Your task to perform on an android device: What's the weather today? Image 0: 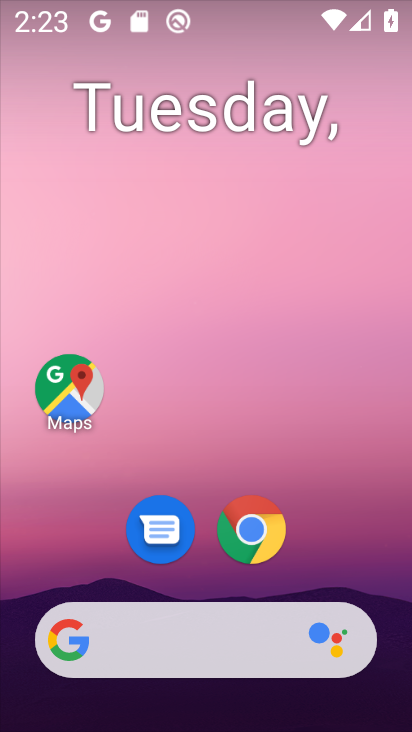
Step 0: drag from (5, 241) to (374, 267)
Your task to perform on an android device: What's the weather today? Image 1: 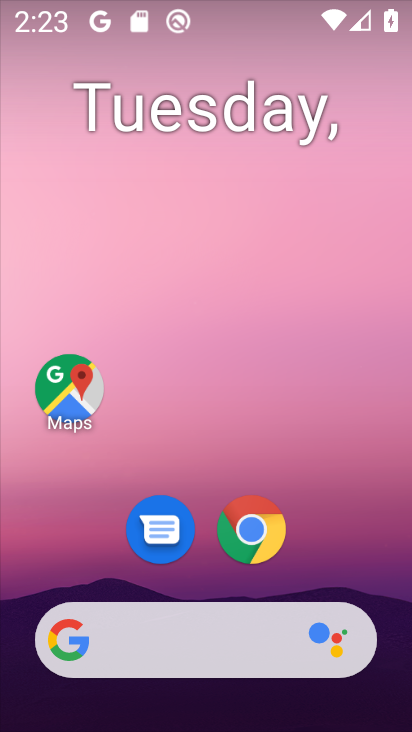
Step 1: drag from (1, 225) to (341, 252)
Your task to perform on an android device: What's the weather today? Image 2: 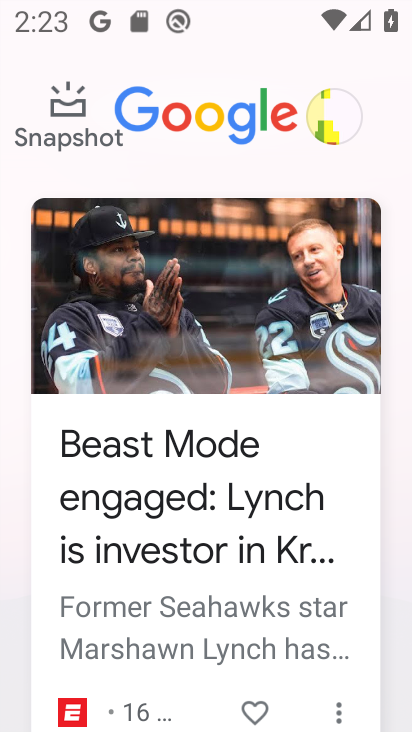
Step 2: drag from (182, 271) to (404, 253)
Your task to perform on an android device: What's the weather today? Image 3: 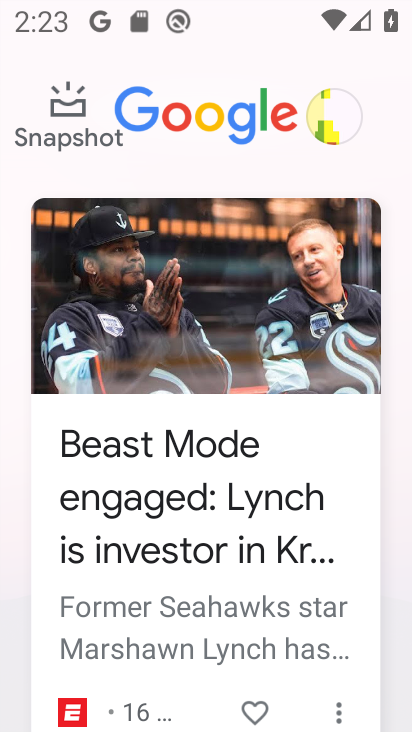
Step 3: drag from (359, 482) to (366, 519)
Your task to perform on an android device: What's the weather today? Image 4: 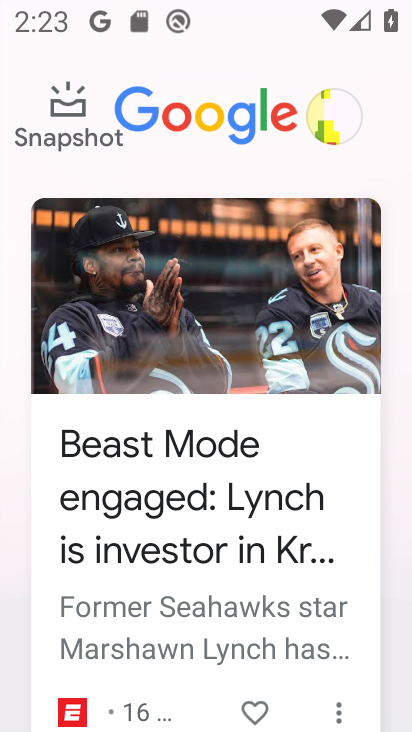
Step 4: drag from (304, 204) to (354, 569)
Your task to perform on an android device: What's the weather today? Image 5: 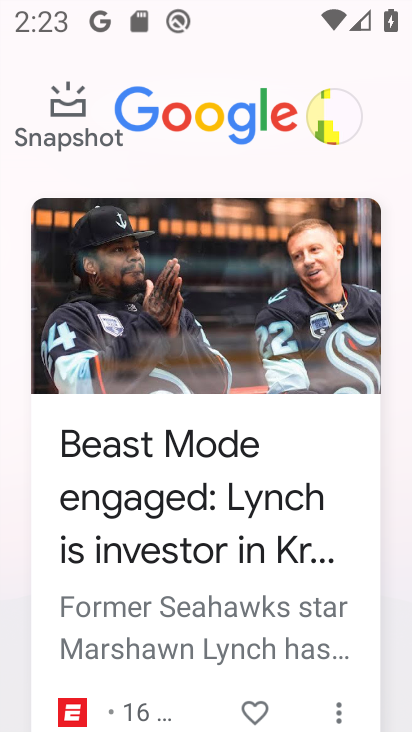
Step 5: drag from (271, 202) to (284, 317)
Your task to perform on an android device: What's the weather today? Image 6: 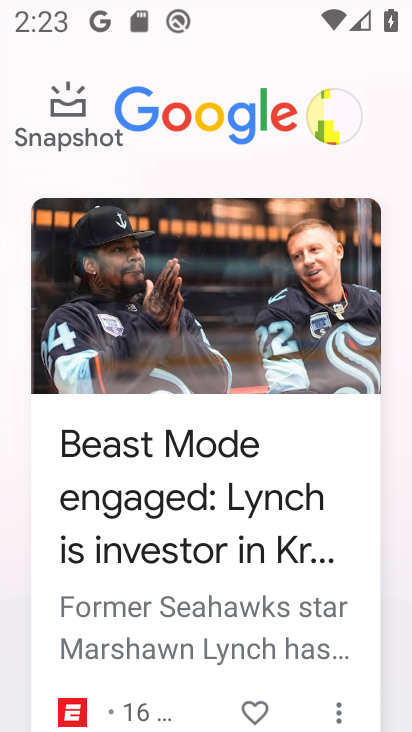
Step 6: drag from (191, 66) to (271, 443)
Your task to perform on an android device: What's the weather today? Image 7: 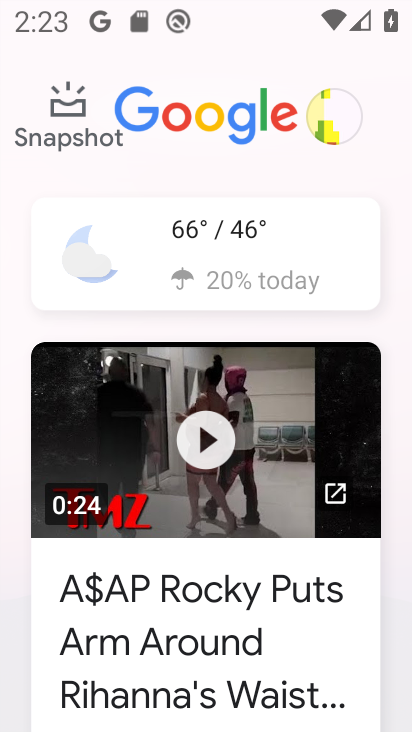
Step 7: click (246, 267)
Your task to perform on an android device: What's the weather today? Image 8: 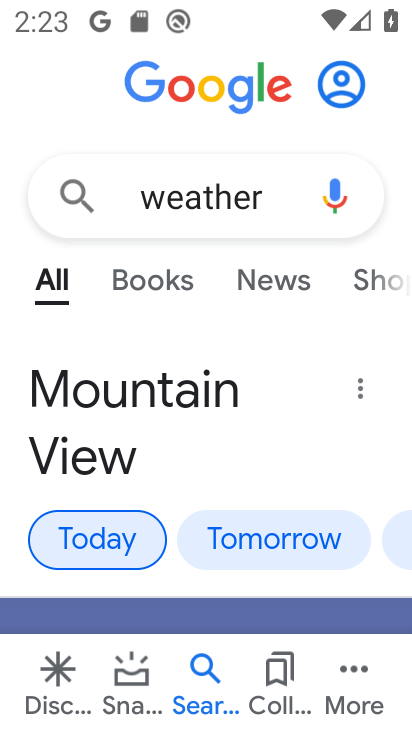
Step 8: task complete